Your task to perform on an android device: Open the stopwatch Image 0: 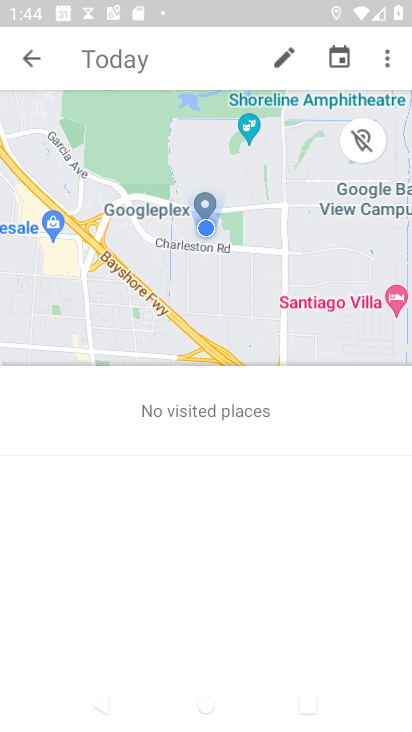
Step 0: press home button
Your task to perform on an android device: Open the stopwatch Image 1: 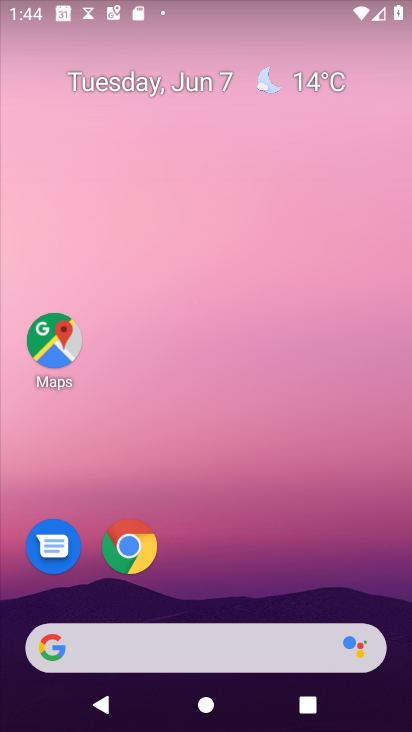
Step 1: drag from (297, 576) to (320, 40)
Your task to perform on an android device: Open the stopwatch Image 2: 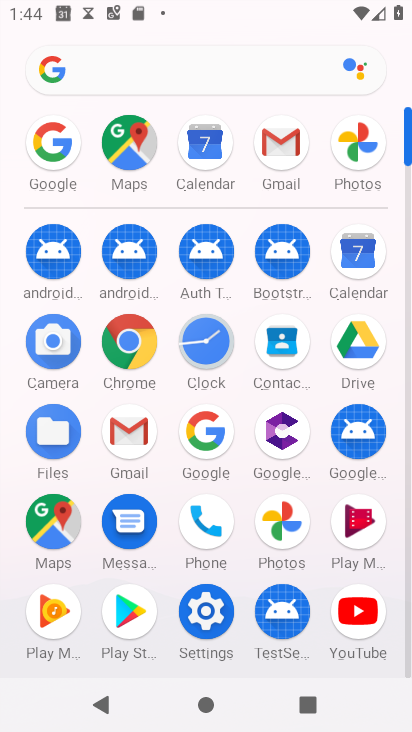
Step 2: click (216, 347)
Your task to perform on an android device: Open the stopwatch Image 3: 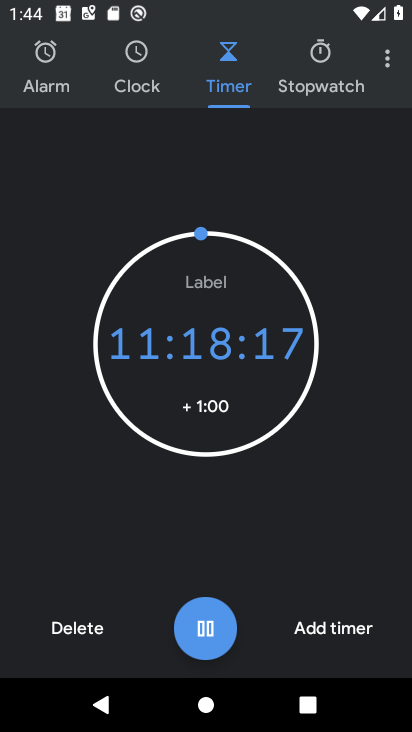
Step 3: click (323, 62)
Your task to perform on an android device: Open the stopwatch Image 4: 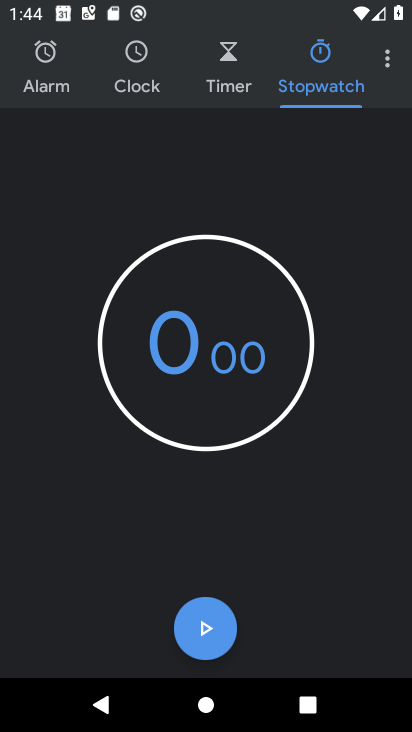
Step 4: task complete